Your task to perform on an android device: empty trash in the gmail app Image 0: 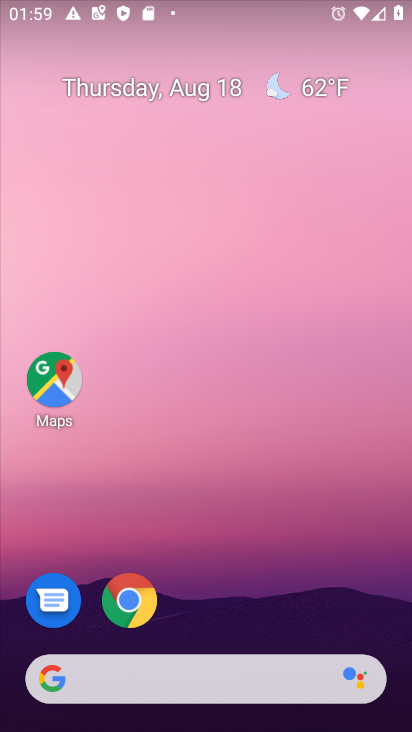
Step 0: press home button
Your task to perform on an android device: empty trash in the gmail app Image 1: 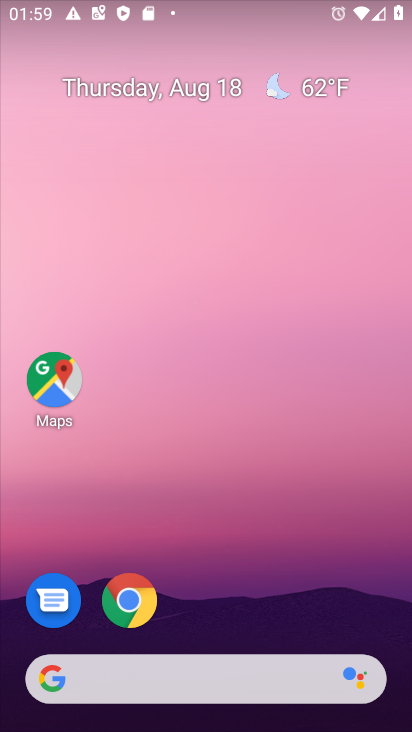
Step 1: press home button
Your task to perform on an android device: empty trash in the gmail app Image 2: 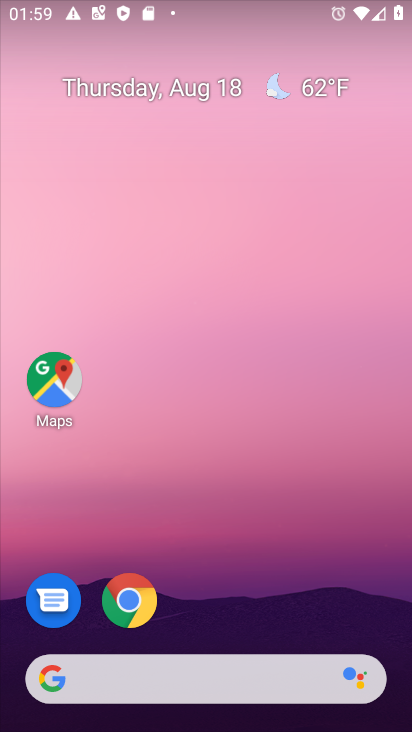
Step 2: drag from (288, 617) to (363, 46)
Your task to perform on an android device: empty trash in the gmail app Image 3: 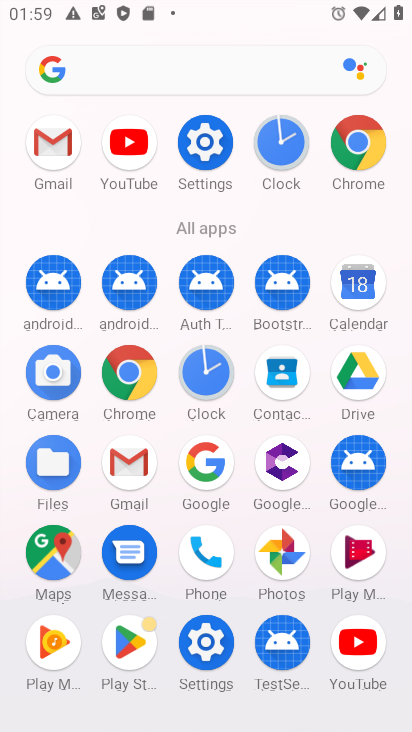
Step 3: click (59, 149)
Your task to perform on an android device: empty trash in the gmail app Image 4: 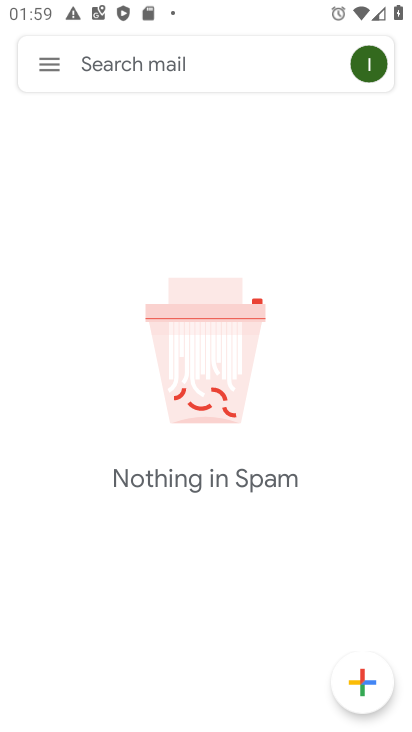
Step 4: click (49, 66)
Your task to perform on an android device: empty trash in the gmail app Image 5: 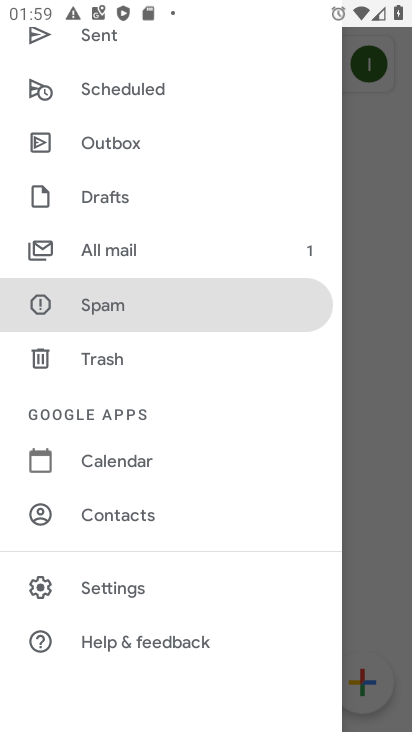
Step 5: click (109, 357)
Your task to perform on an android device: empty trash in the gmail app Image 6: 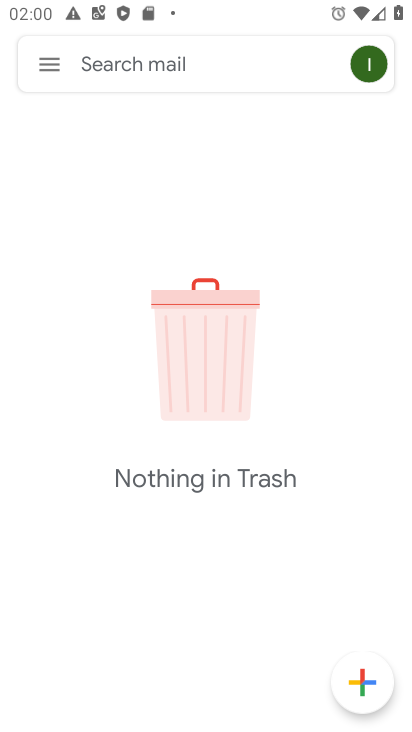
Step 6: task complete